Your task to perform on an android device: When is my next appointment? Image 0: 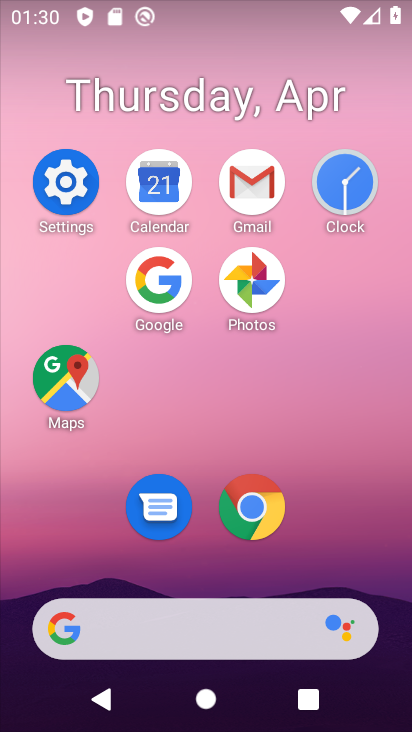
Step 0: click (168, 187)
Your task to perform on an android device: When is my next appointment? Image 1: 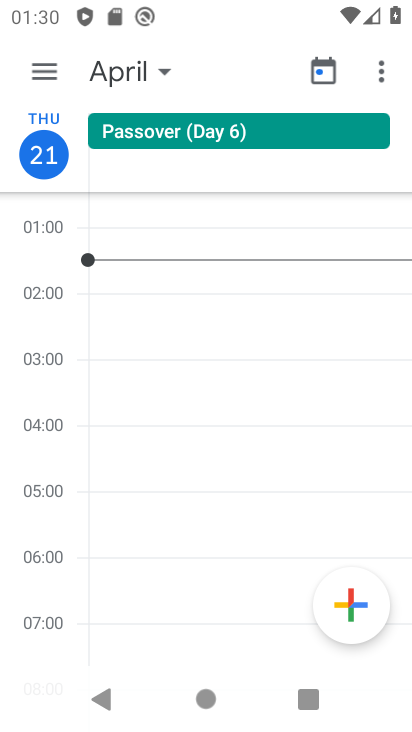
Step 1: task complete